Your task to perform on an android device: Empty the shopping cart on amazon.com. Add corsair k70 to the cart on amazon.com Image 0: 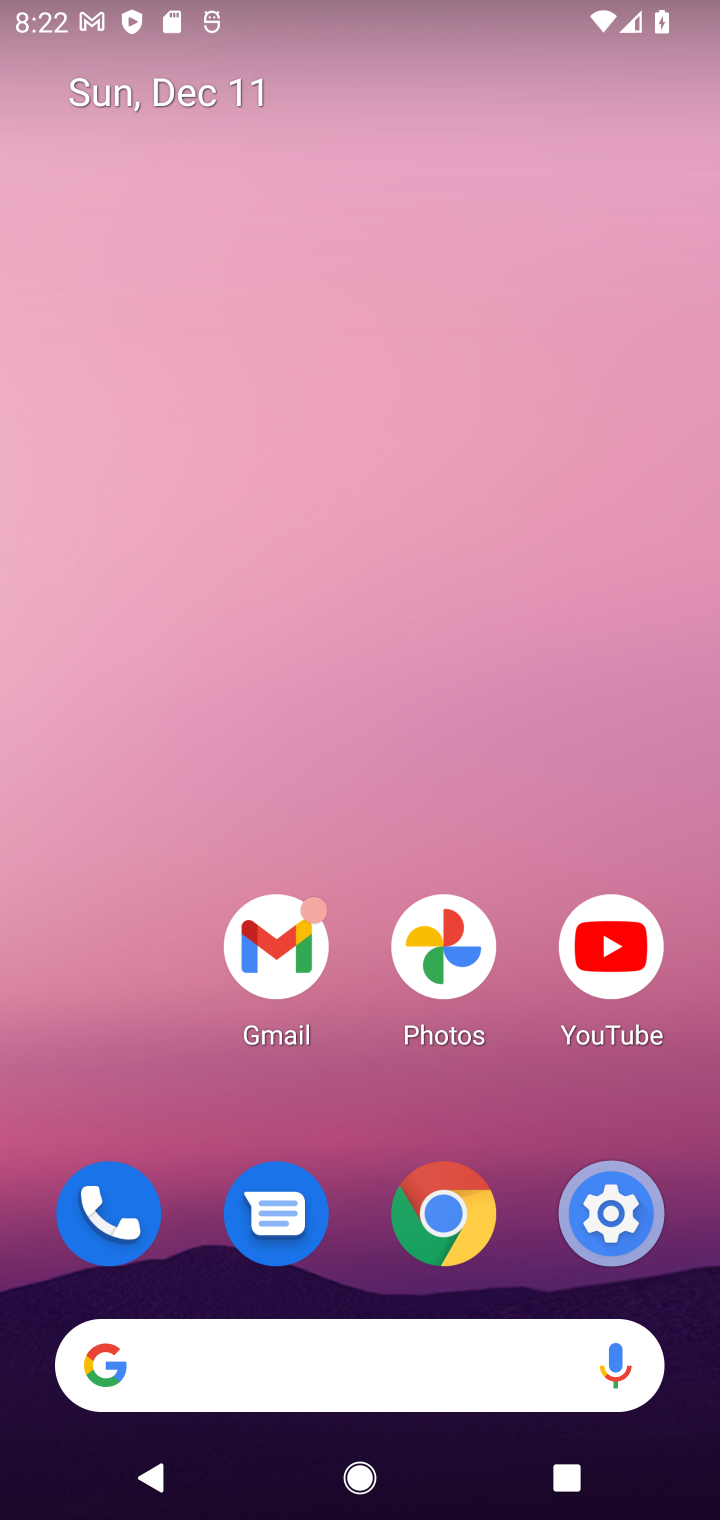
Step 0: click (468, 1358)
Your task to perform on an android device: Empty the shopping cart on amazon.com. Add corsair k70 to the cart on amazon.com Image 1: 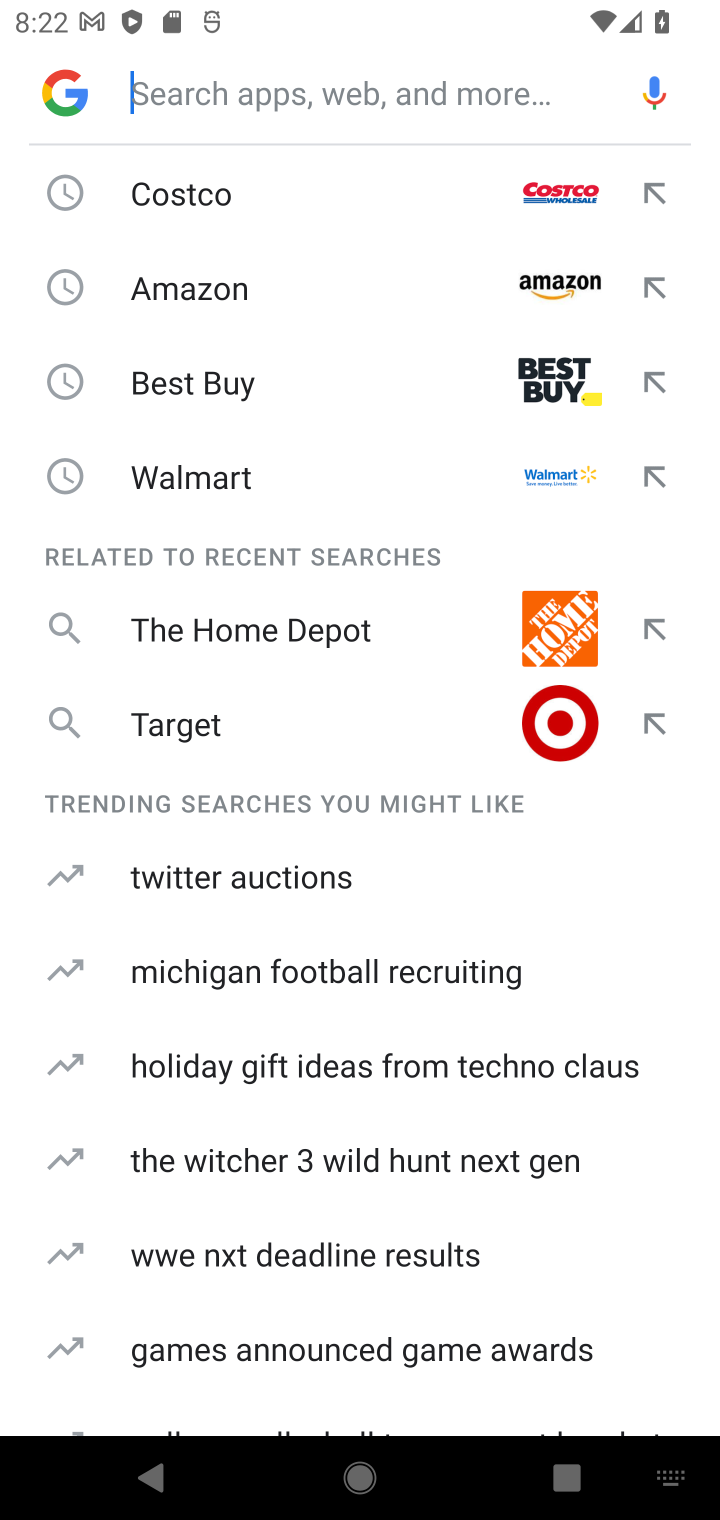
Step 1: type "ama"
Your task to perform on an android device: Empty the shopping cart on amazon.com. Add corsair k70 to the cart on amazon.com Image 2: 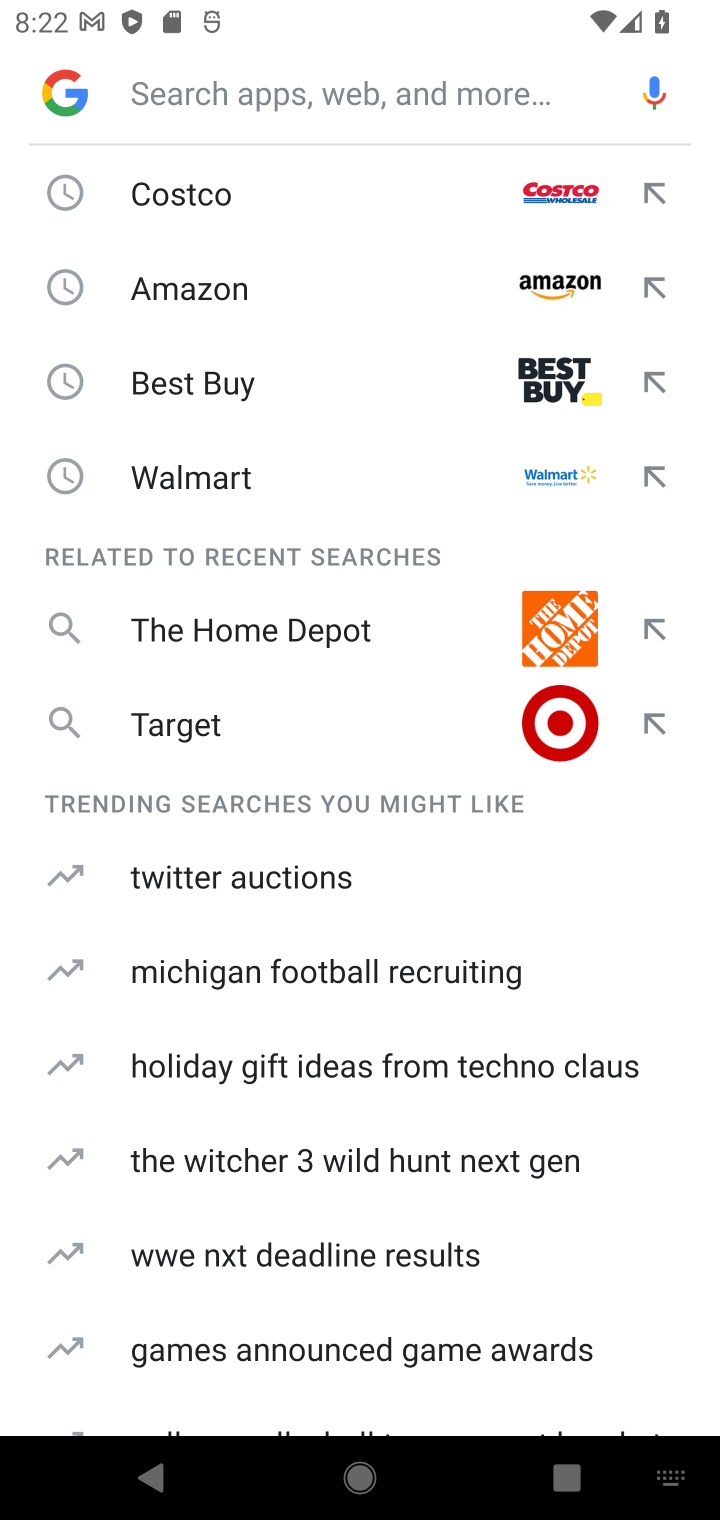
Step 2: click (298, 314)
Your task to perform on an android device: Empty the shopping cart on amazon.com. Add corsair k70 to the cart on amazon.com Image 3: 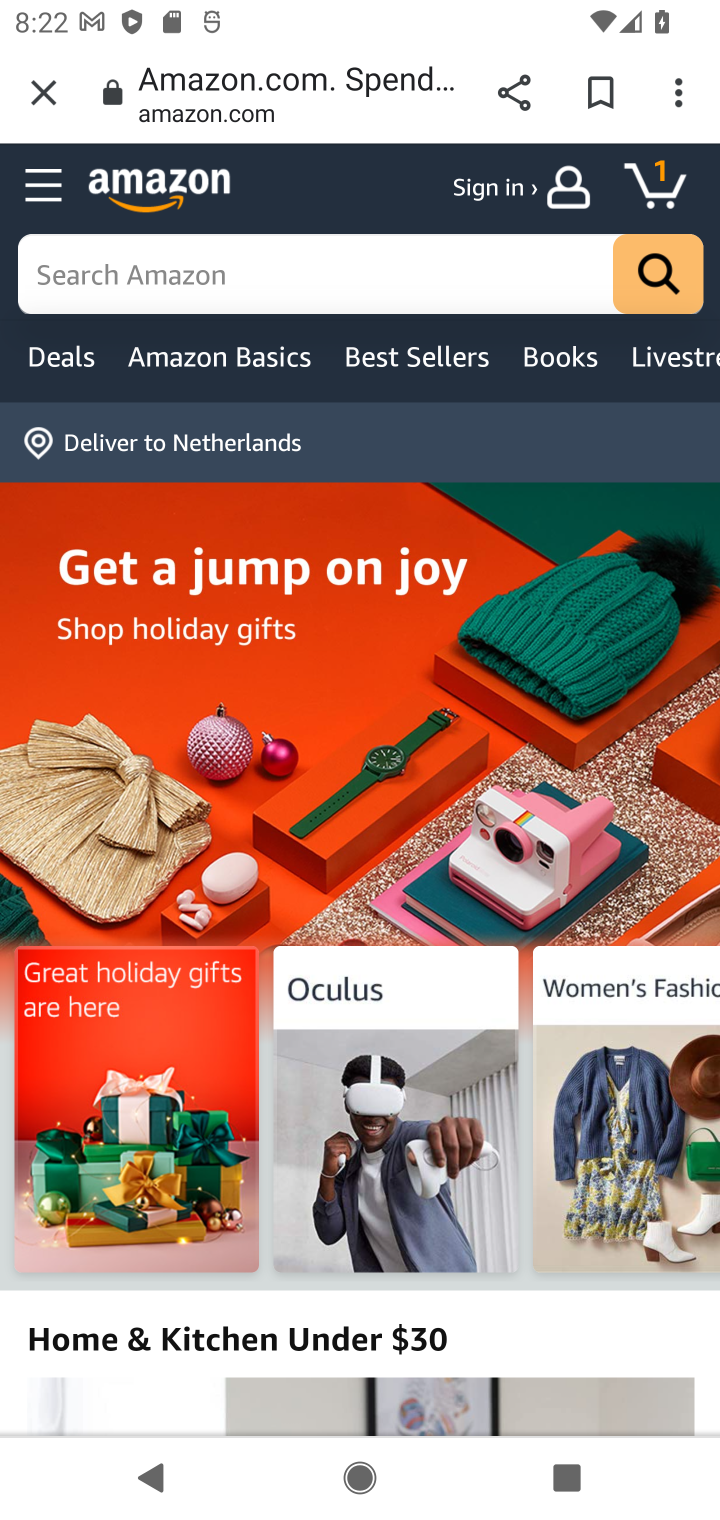
Step 3: click (266, 283)
Your task to perform on an android device: Empty the shopping cart on amazon.com. Add corsair k70 to the cart on amazon.com Image 4: 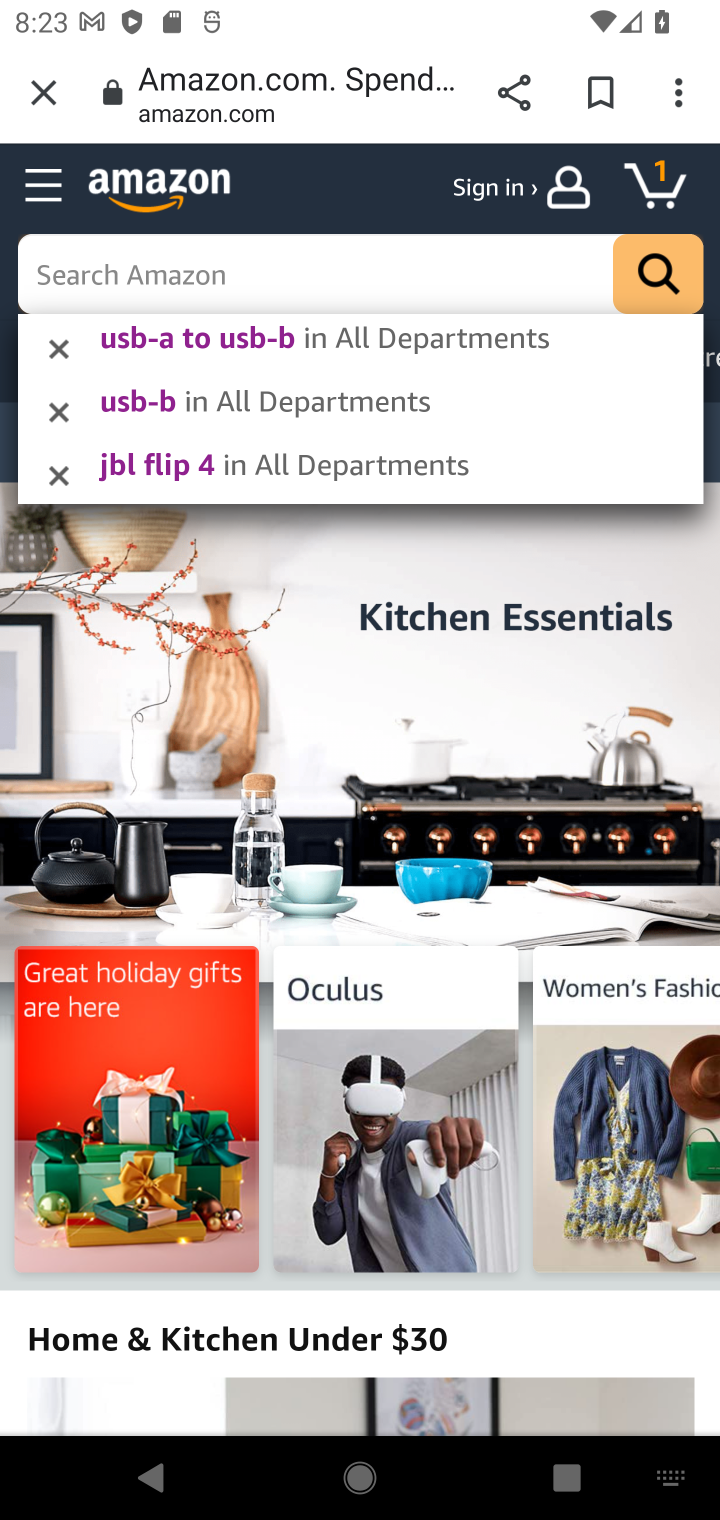
Step 4: type "corsair"
Your task to perform on an android device: Empty the shopping cart on amazon.com. Add corsair k70 to the cart on amazon.com Image 5: 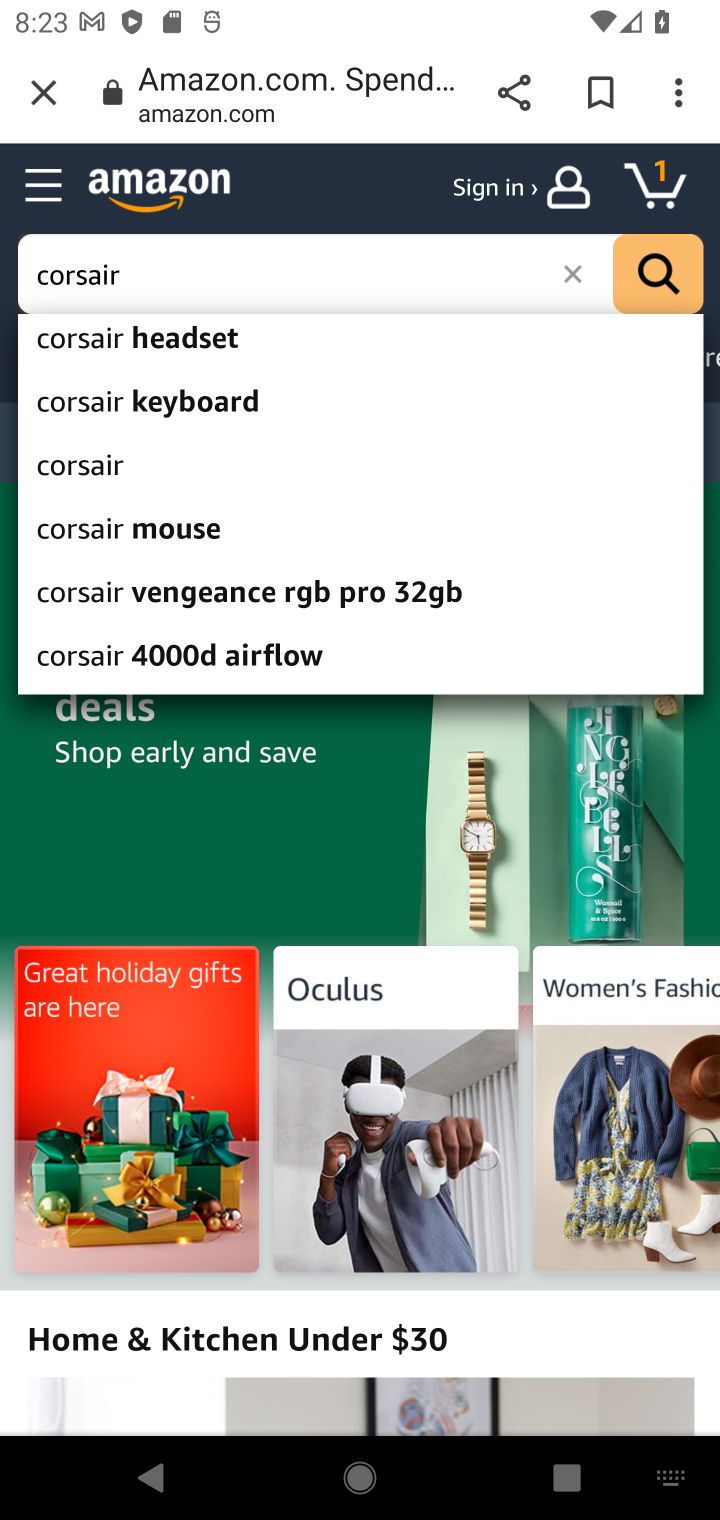
Step 5: type " k70"
Your task to perform on an android device: Empty the shopping cart on amazon.com. Add corsair k70 to the cart on amazon.com Image 6: 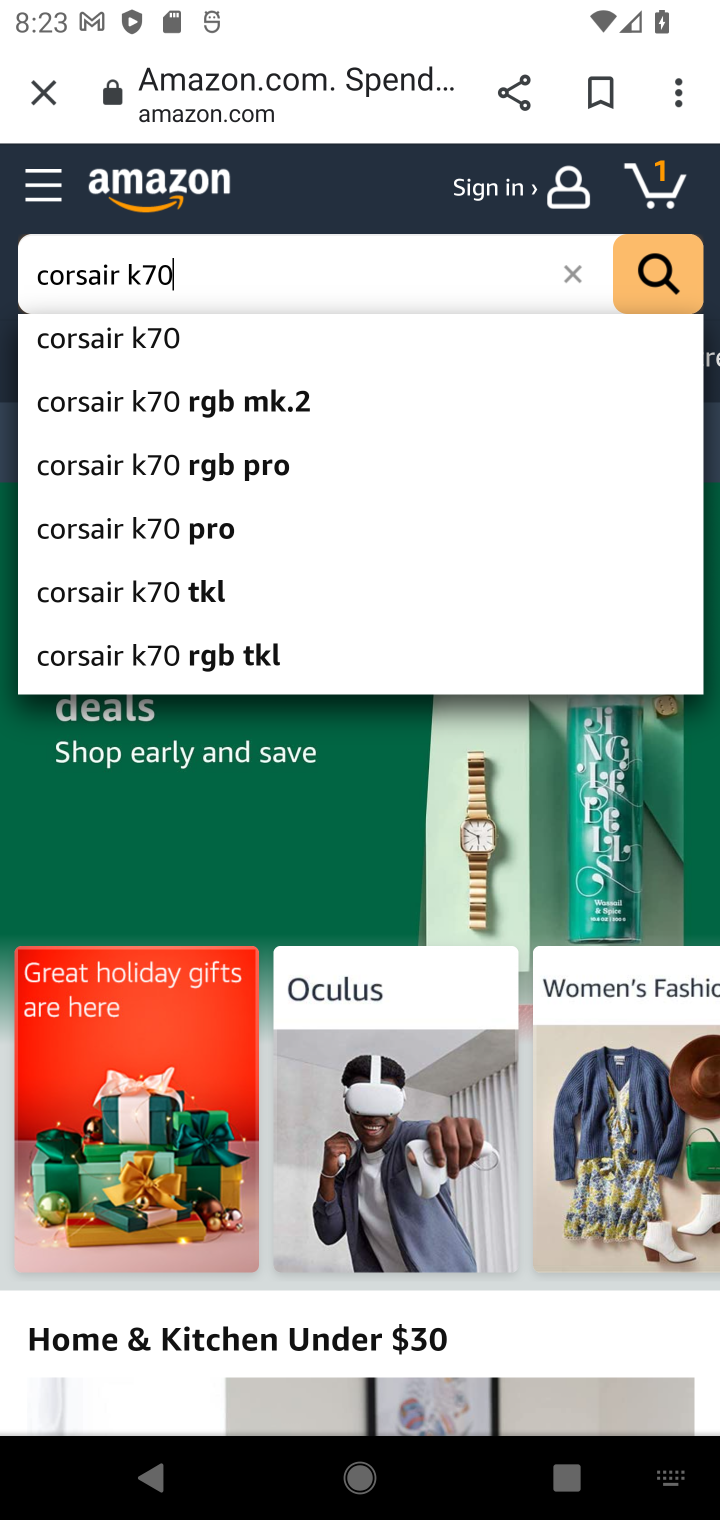
Step 6: click (149, 343)
Your task to perform on an android device: Empty the shopping cart on amazon.com. Add corsair k70 to the cart on amazon.com Image 7: 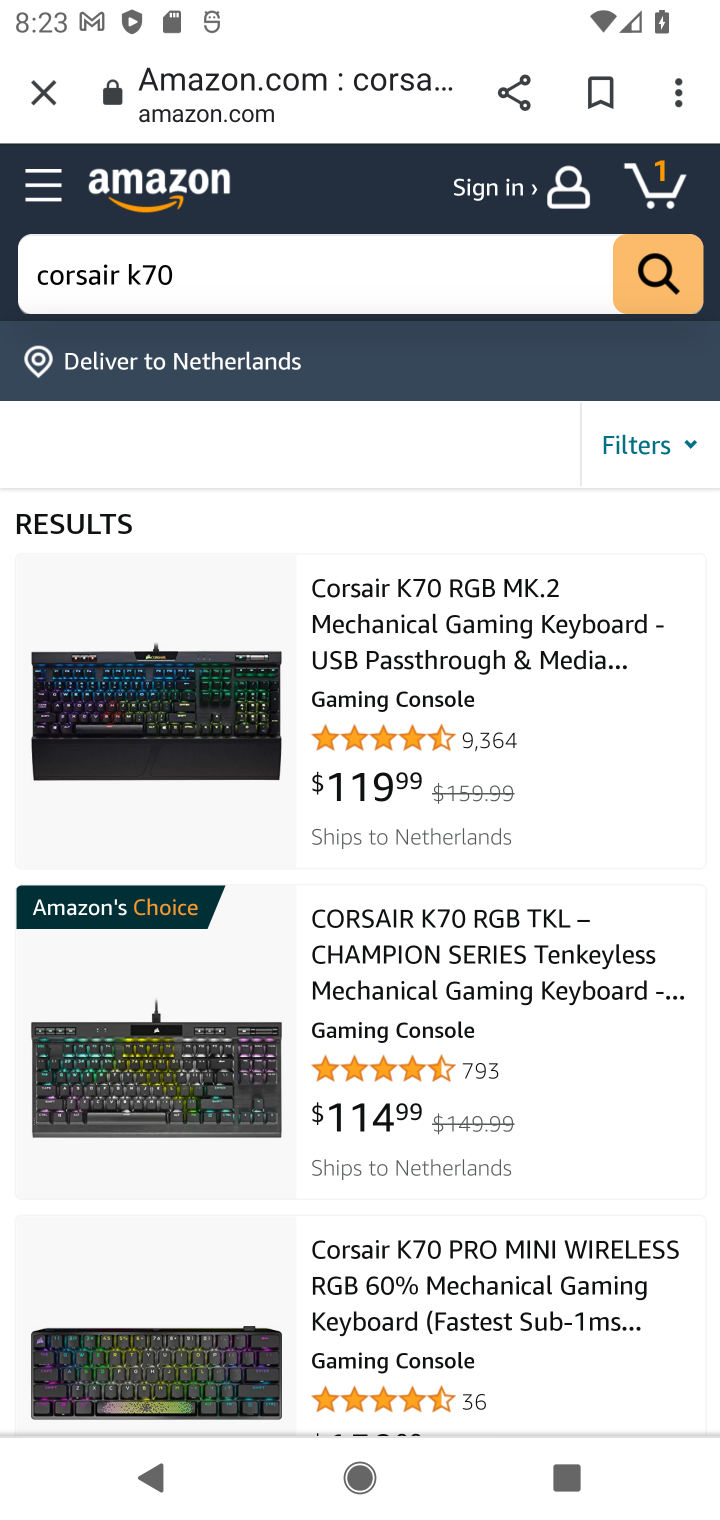
Step 7: click (464, 674)
Your task to perform on an android device: Empty the shopping cart on amazon.com. Add corsair k70 to the cart on amazon.com Image 8: 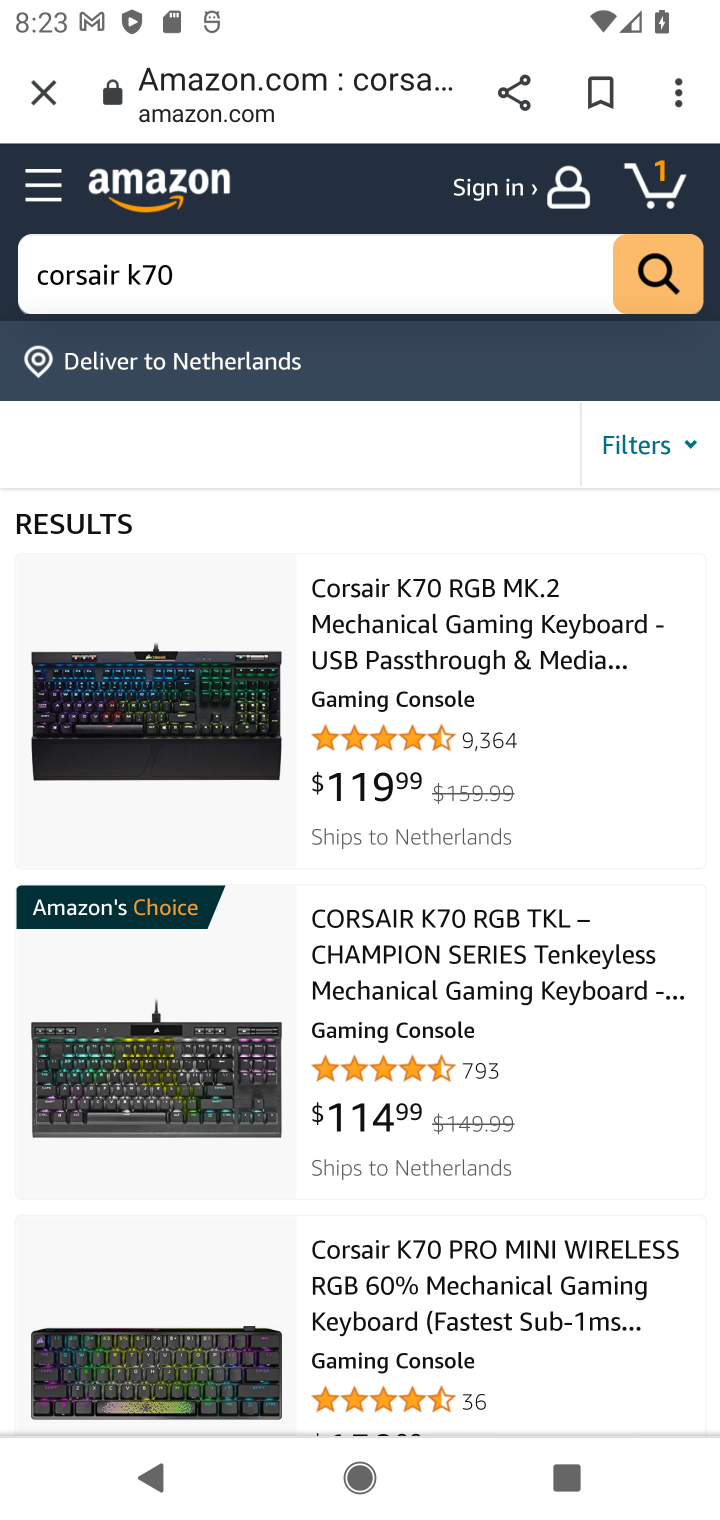
Step 8: click (464, 674)
Your task to perform on an android device: Empty the shopping cart on amazon.com. Add corsair k70 to the cart on amazon.com Image 9: 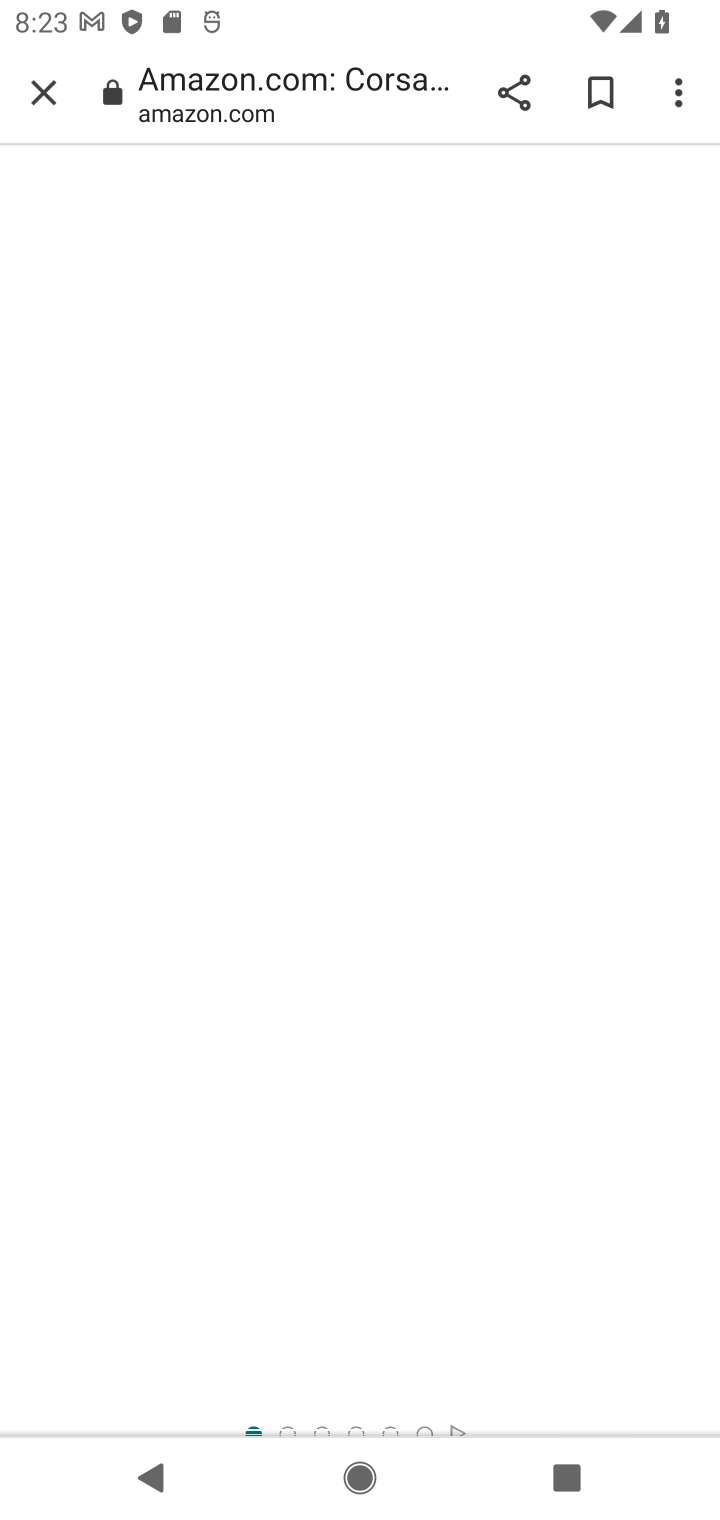
Step 9: drag from (472, 1090) to (434, 629)
Your task to perform on an android device: Empty the shopping cart on amazon.com. Add corsair k70 to the cart on amazon.com Image 10: 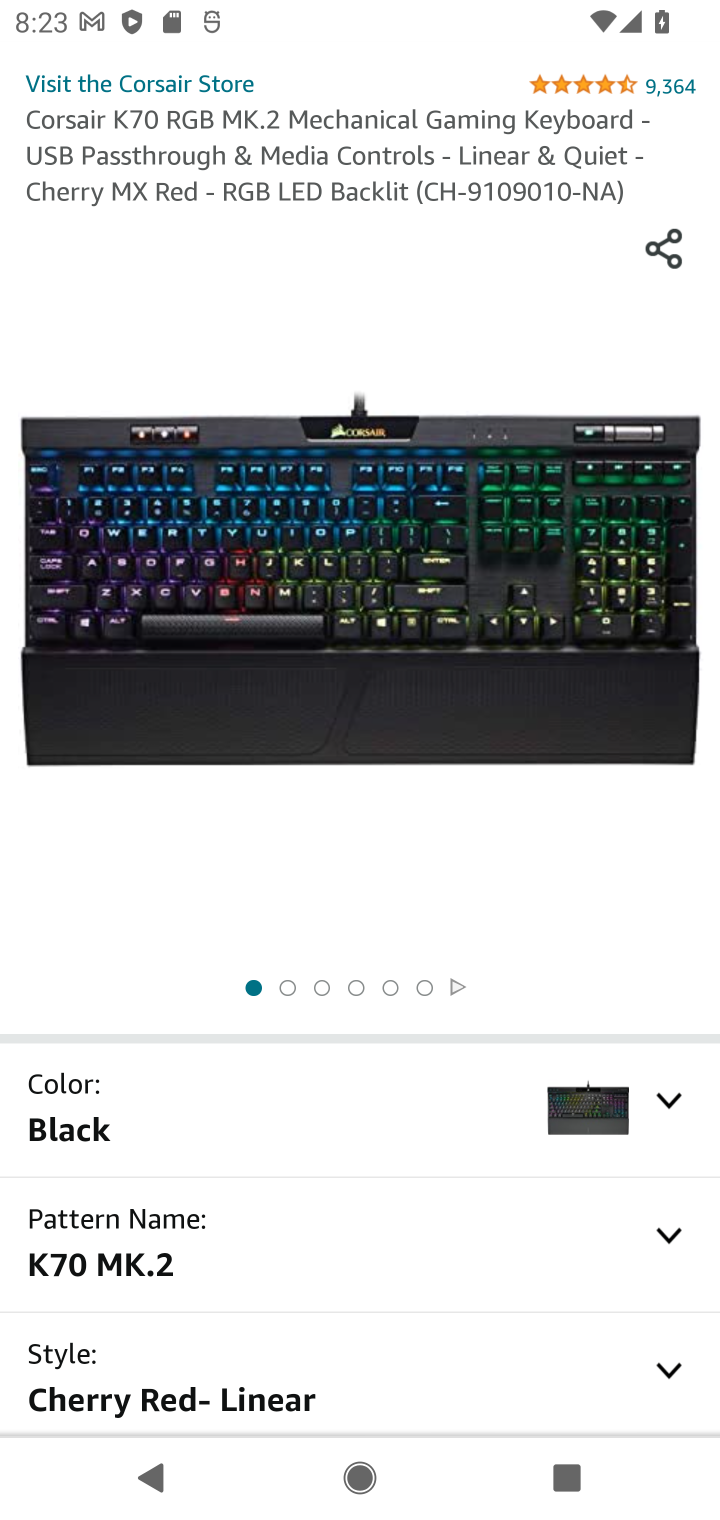
Step 10: drag from (386, 1256) to (385, 756)
Your task to perform on an android device: Empty the shopping cart on amazon.com. Add corsair k70 to the cart on amazon.com Image 11: 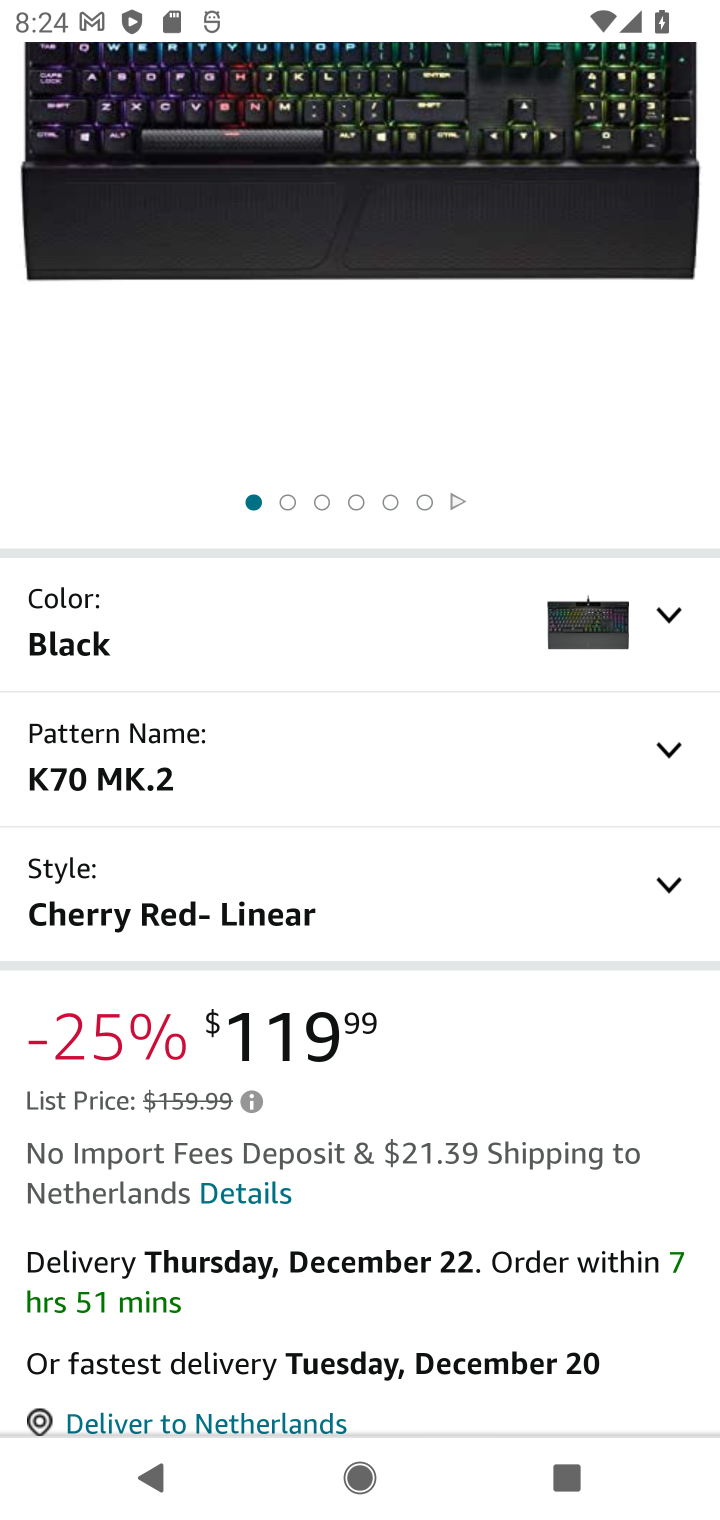
Step 11: drag from (422, 1205) to (443, 307)
Your task to perform on an android device: Empty the shopping cart on amazon.com. Add corsair k70 to the cart on amazon.com Image 12: 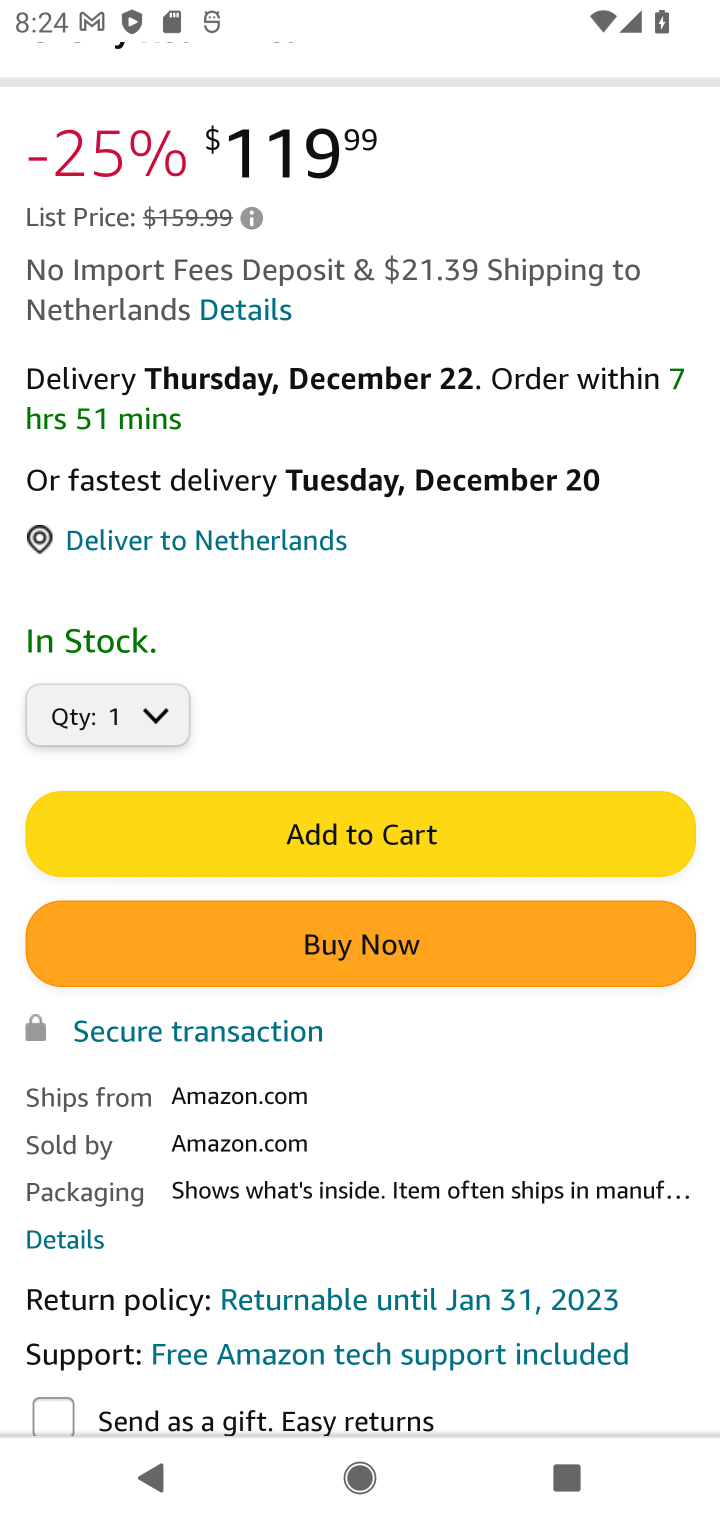
Step 12: click (483, 846)
Your task to perform on an android device: Empty the shopping cart on amazon.com. Add corsair k70 to the cart on amazon.com Image 13: 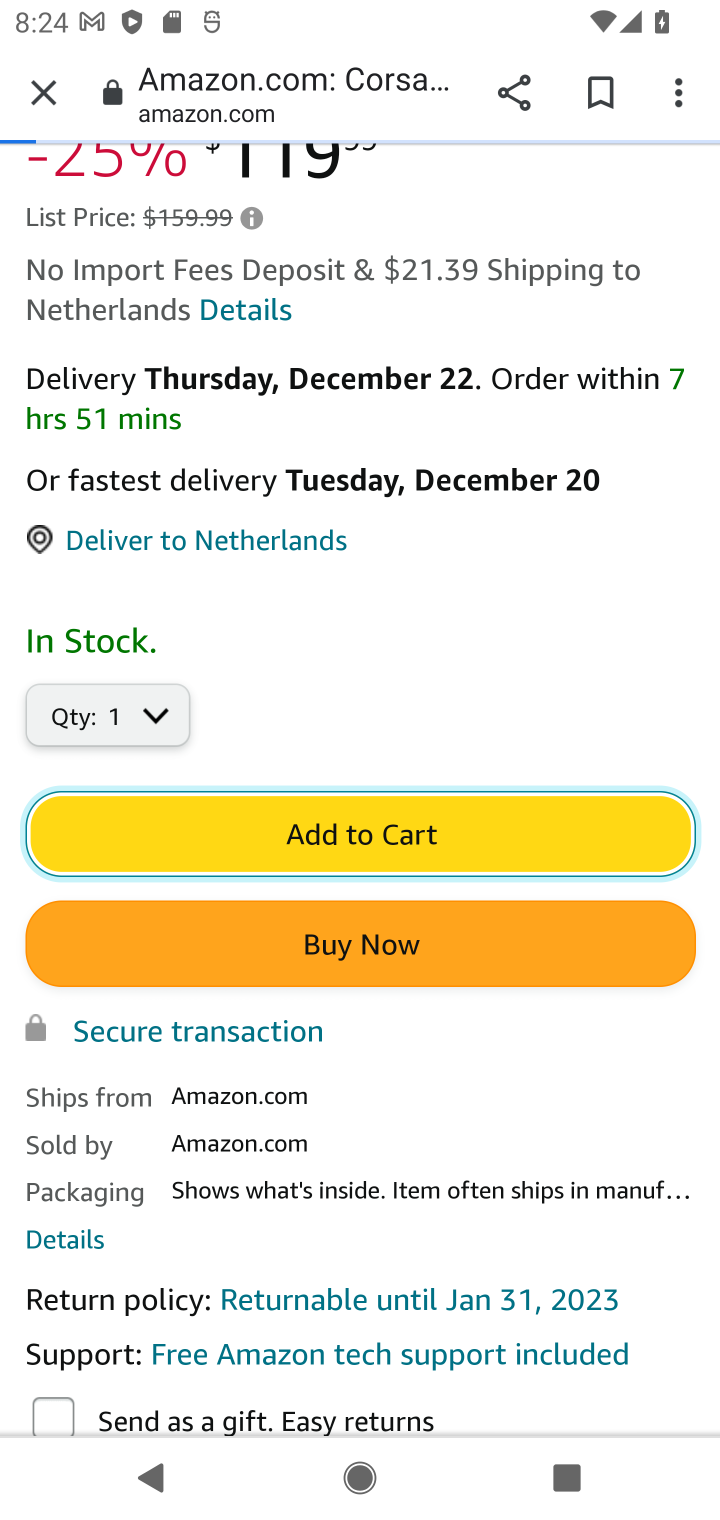
Step 13: task complete